Your task to perform on an android device: Show the shopping cart on ebay.com. Search for energizer triple a on ebay.com, select the first entry, add it to the cart, then select checkout. Image 0: 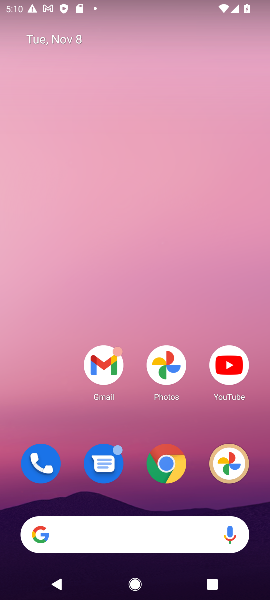
Step 0: click (155, 474)
Your task to perform on an android device: Show the shopping cart on ebay.com. Search for energizer triple a on ebay.com, select the first entry, add it to the cart, then select checkout. Image 1: 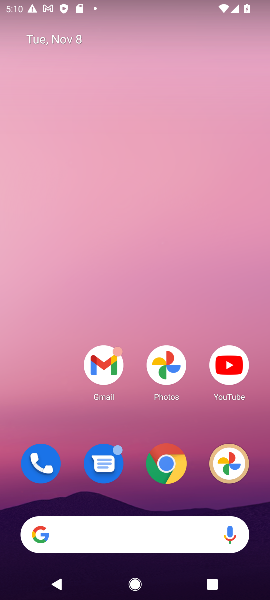
Step 1: click (162, 470)
Your task to perform on an android device: Show the shopping cart on ebay.com. Search for energizer triple a on ebay.com, select the first entry, add it to the cart, then select checkout. Image 2: 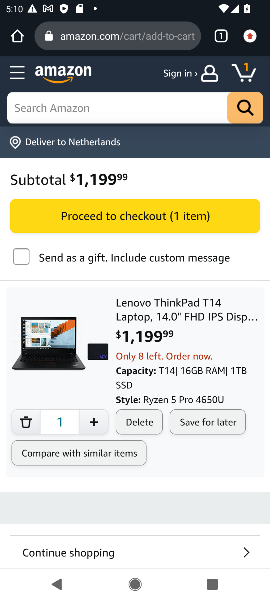
Step 2: click (88, 29)
Your task to perform on an android device: Show the shopping cart on ebay.com. Search for energizer triple a on ebay.com, select the first entry, add it to the cart, then select checkout. Image 3: 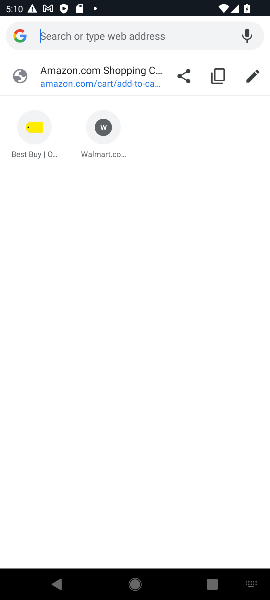
Step 3: type "ebay"
Your task to perform on an android device: Show the shopping cart on ebay.com. Search for energizer triple a on ebay.com, select the first entry, add it to the cart, then select checkout. Image 4: 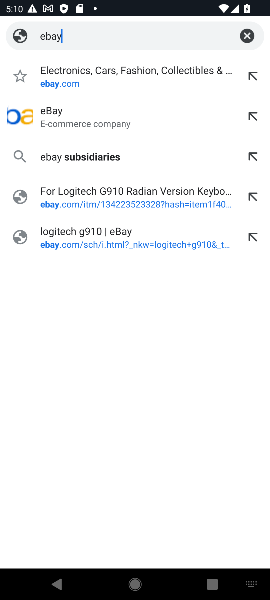
Step 4: click (50, 114)
Your task to perform on an android device: Show the shopping cart on ebay.com. Search for energizer triple a on ebay.com, select the first entry, add it to the cart, then select checkout. Image 5: 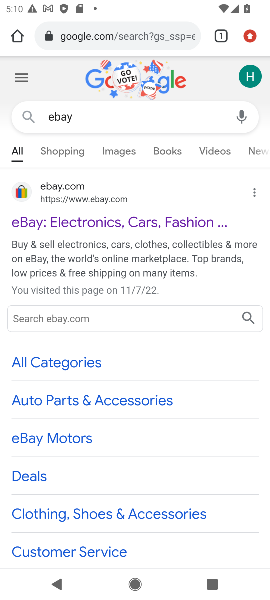
Step 5: click (113, 228)
Your task to perform on an android device: Show the shopping cart on ebay.com. Search for energizer triple a on ebay.com, select the first entry, add it to the cart, then select checkout. Image 6: 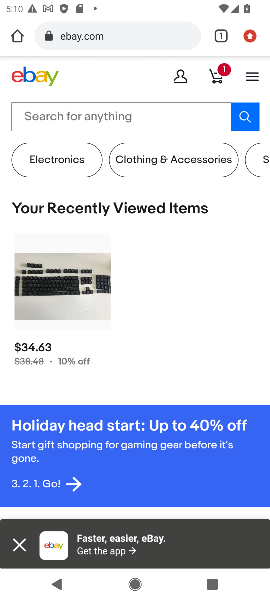
Step 6: click (222, 79)
Your task to perform on an android device: Show the shopping cart on ebay.com. Search for energizer triple a on ebay.com, select the first entry, add it to the cart, then select checkout. Image 7: 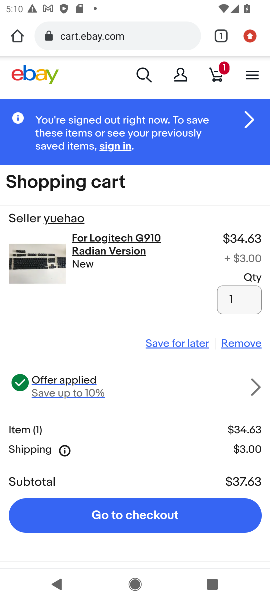
Step 7: click (134, 74)
Your task to perform on an android device: Show the shopping cart on ebay.com. Search for energizer triple a on ebay.com, select the first entry, add it to the cart, then select checkout. Image 8: 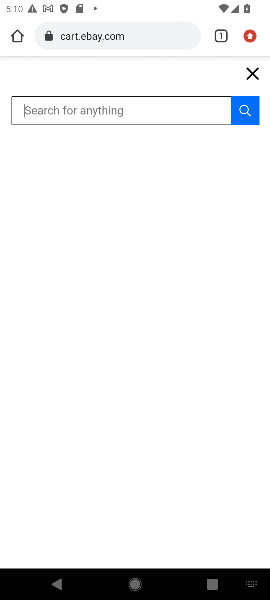
Step 8: type " energizer triple a"
Your task to perform on an android device: Show the shopping cart on ebay.com. Search for energizer triple a on ebay.com, select the first entry, add it to the cart, then select checkout. Image 9: 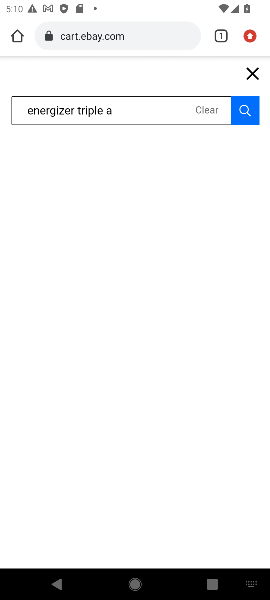
Step 9: click (238, 105)
Your task to perform on an android device: Show the shopping cart on ebay.com. Search for energizer triple a on ebay.com, select the first entry, add it to the cart, then select checkout. Image 10: 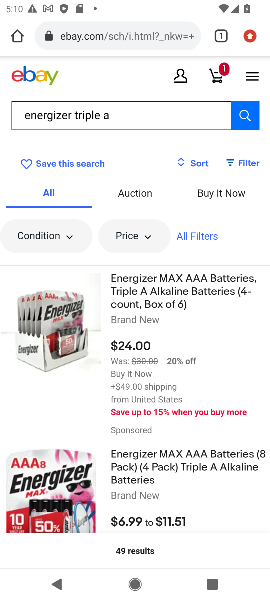
Step 10: click (142, 288)
Your task to perform on an android device: Show the shopping cart on ebay.com. Search for energizer triple a on ebay.com, select the first entry, add it to the cart, then select checkout. Image 11: 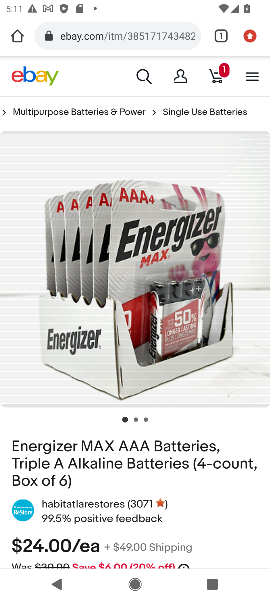
Step 11: drag from (94, 476) to (145, 72)
Your task to perform on an android device: Show the shopping cart on ebay.com. Search for energizer triple a on ebay.com, select the first entry, add it to the cart, then select checkout. Image 12: 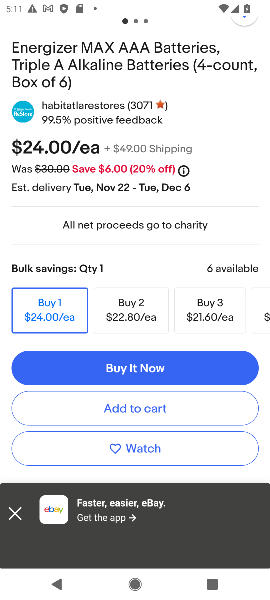
Step 12: click (153, 410)
Your task to perform on an android device: Show the shopping cart on ebay.com. Search for energizer triple a on ebay.com, select the first entry, add it to the cart, then select checkout. Image 13: 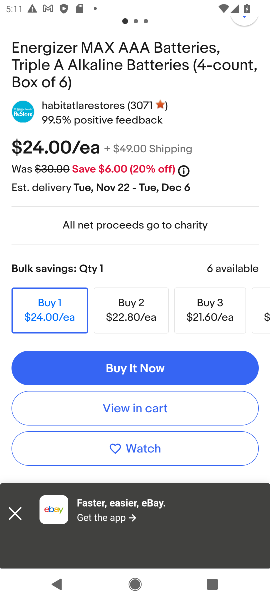
Step 13: click (153, 410)
Your task to perform on an android device: Show the shopping cart on ebay.com. Search for energizer triple a on ebay.com, select the first entry, add it to the cart, then select checkout. Image 14: 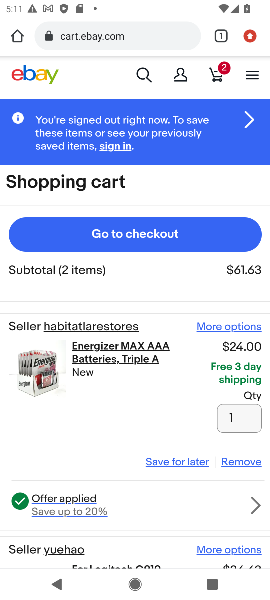
Step 14: click (175, 245)
Your task to perform on an android device: Show the shopping cart on ebay.com. Search for energizer triple a on ebay.com, select the first entry, add it to the cart, then select checkout. Image 15: 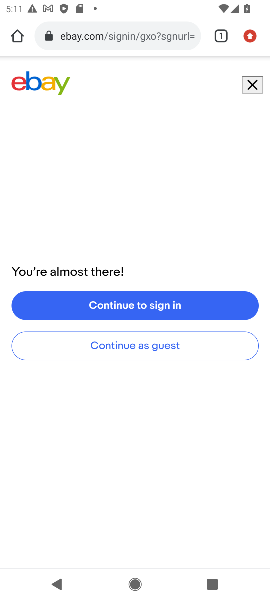
Step 15: task complete